Your task to perform on an android device: Find coffee shops on Maps Image 0: 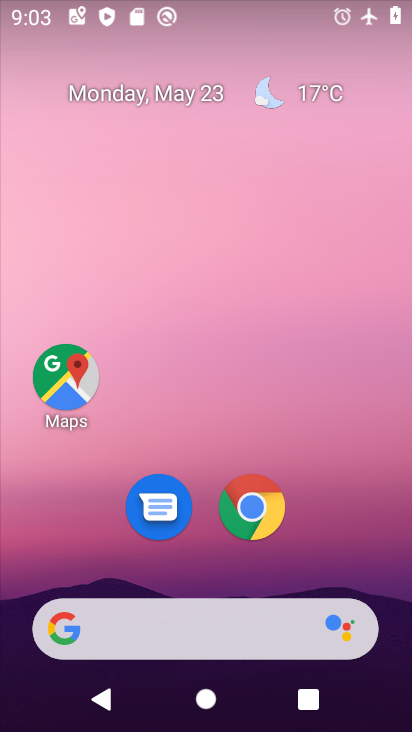
Step 0: click (65, 382)
Your task to perform on an android device: Find coffee shops on Maps Image 1: 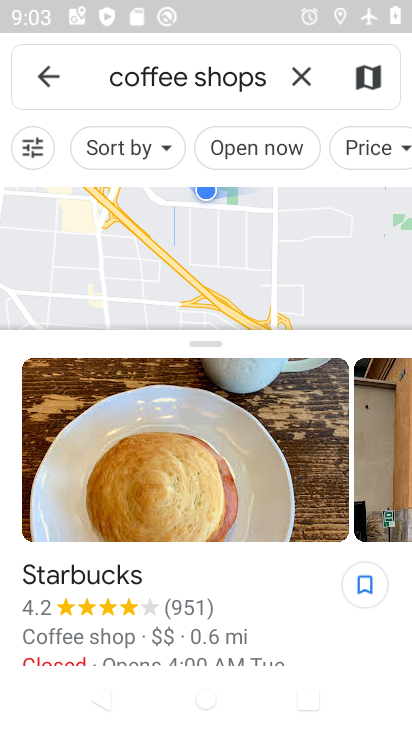
Step 1: task complete